Your task to perform on an android device: Open Android settings Image 0: 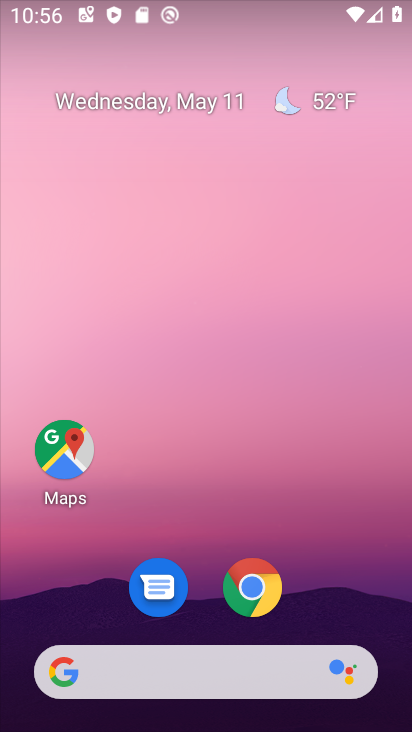
Step 0: drag from (217, 706) to (349, 189)
Your task to perform on an android device: Open Android settings Image 1: 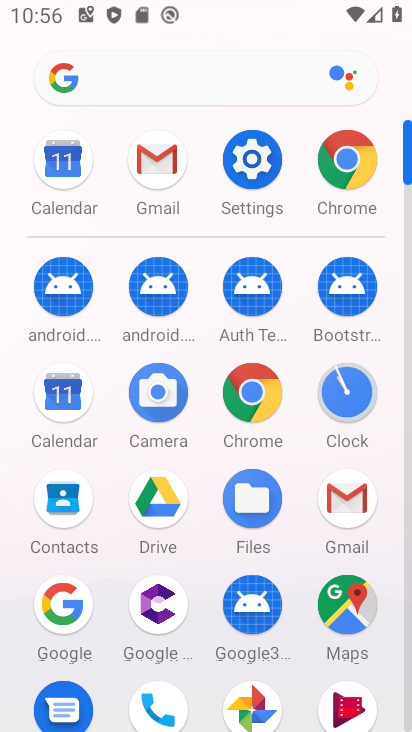
Step 1: click (245, 173)
Your task to perform on an android device: Open Android settings Image 2: 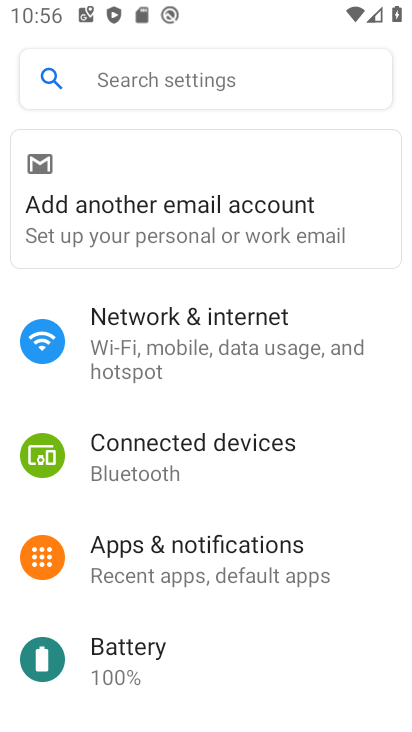
Step 2: click (167, 87)
Your task to perform on an android device: Open Android settings Image 3: 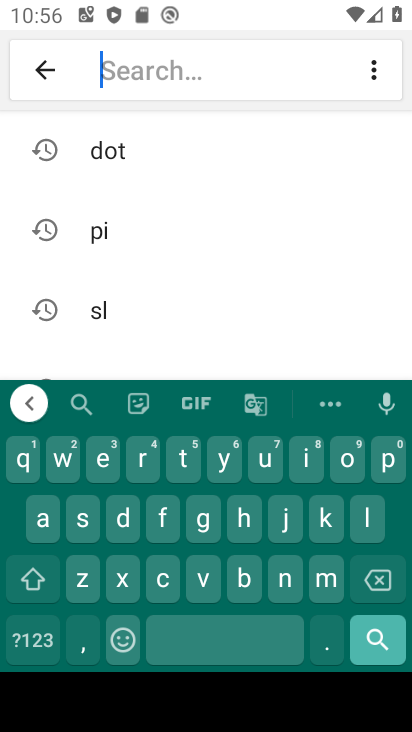
Step 3: click (43, 521)
Your task to perform on an android device: Open Android settings Image 4: 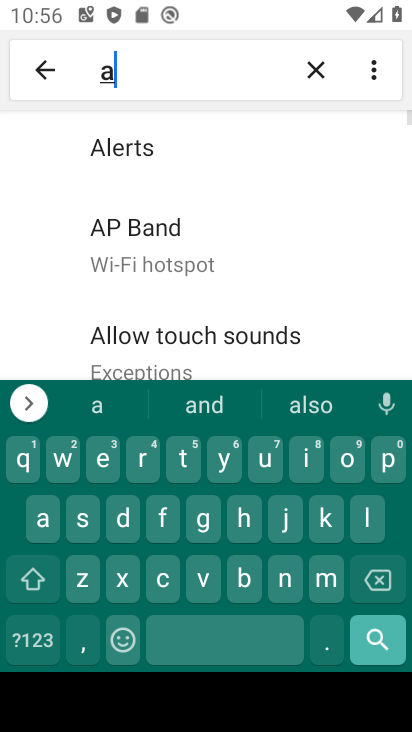
Step 4: click (282, 590)
Your task to perform on an android device: Open Android settings Image 5: 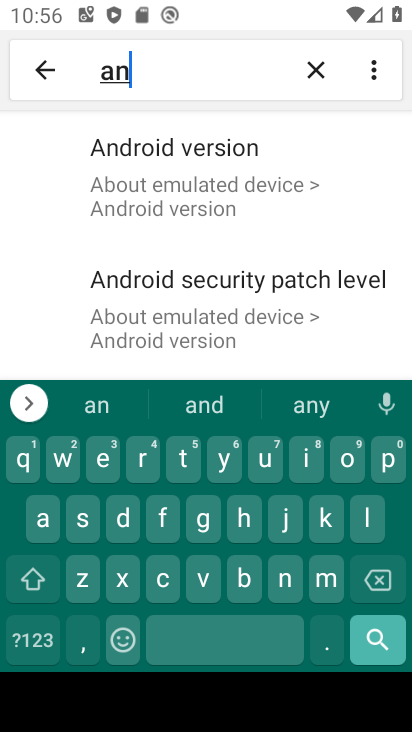
Step 5: click (190, 177)
Your task to perform on an android device: Open Android settings Image 6: 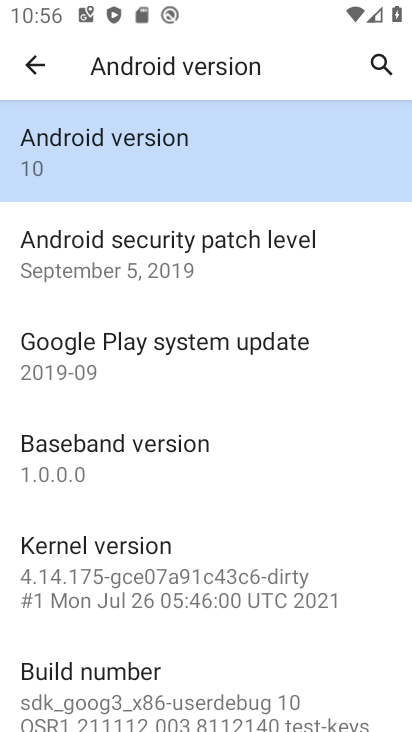
Step 6: task complete